Your task to perform on an android device: Show me the alarms in the clock app Image 0: 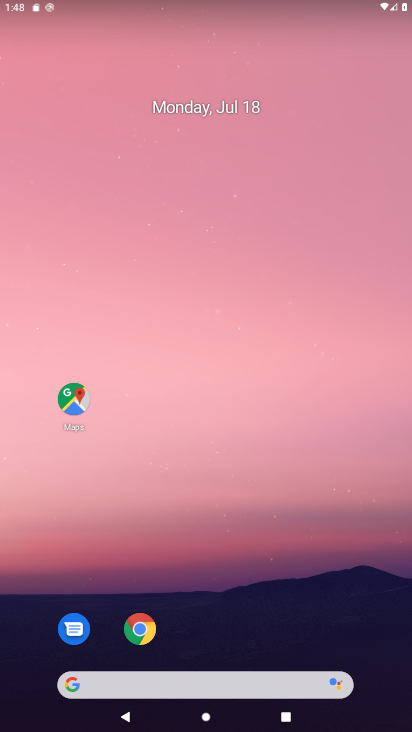
Step 0: drag from (193, 604) to (234, 162)
Your task to perform on an android device: Show me the alarms in the clock app Image 1: 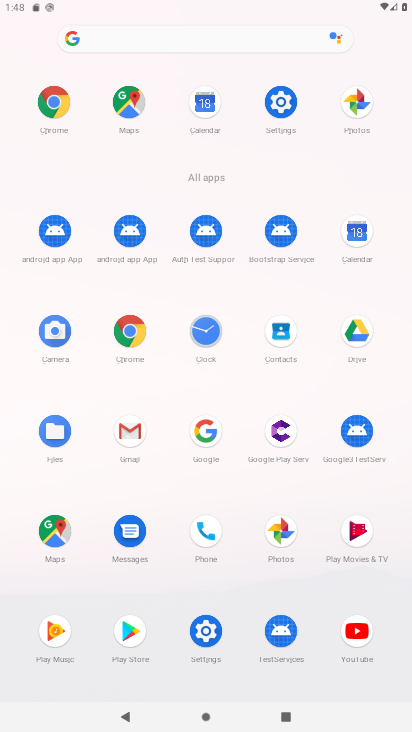
Step 1: click (202, 330)
Your task to perform on an android device: Show me the alarms in the clock app Image 2: 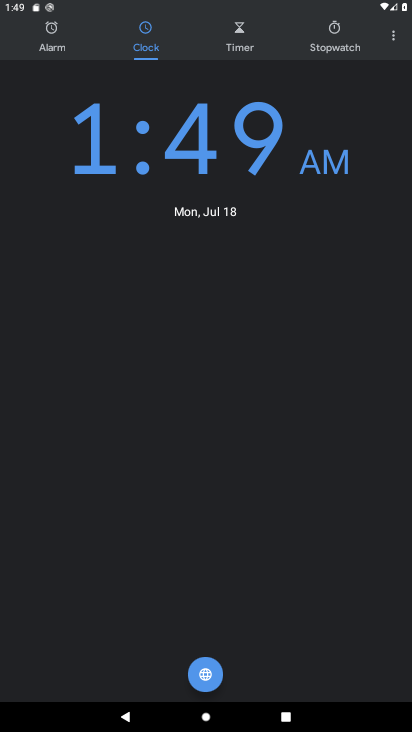
Step 2: click (49, 47)
Your task to perform on an android device: Show me the alarms in the clock app Image 3: 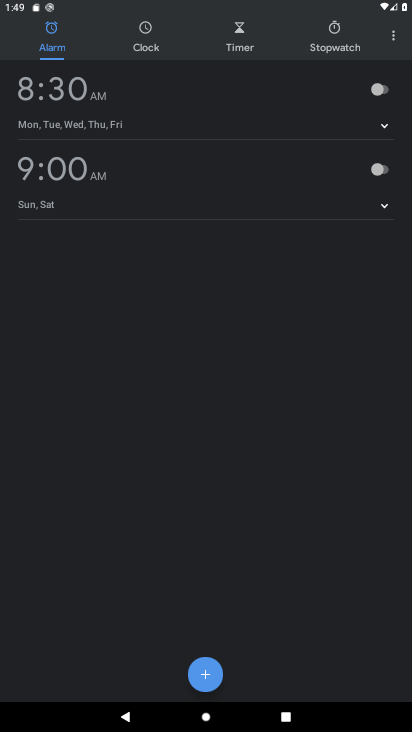
Step 3: task complete